Your task to perform on an android device: uninstall "Google Sheets" Image 0: 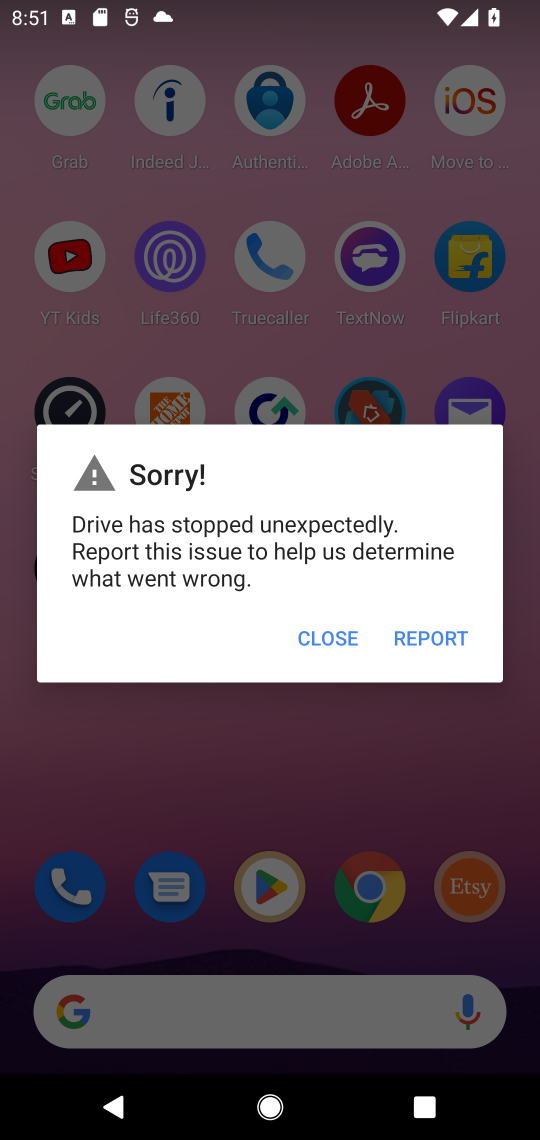
Step 0: click (316, 639)
Your task to perform on an android device: uninstall "Google Sheets" Image 1: 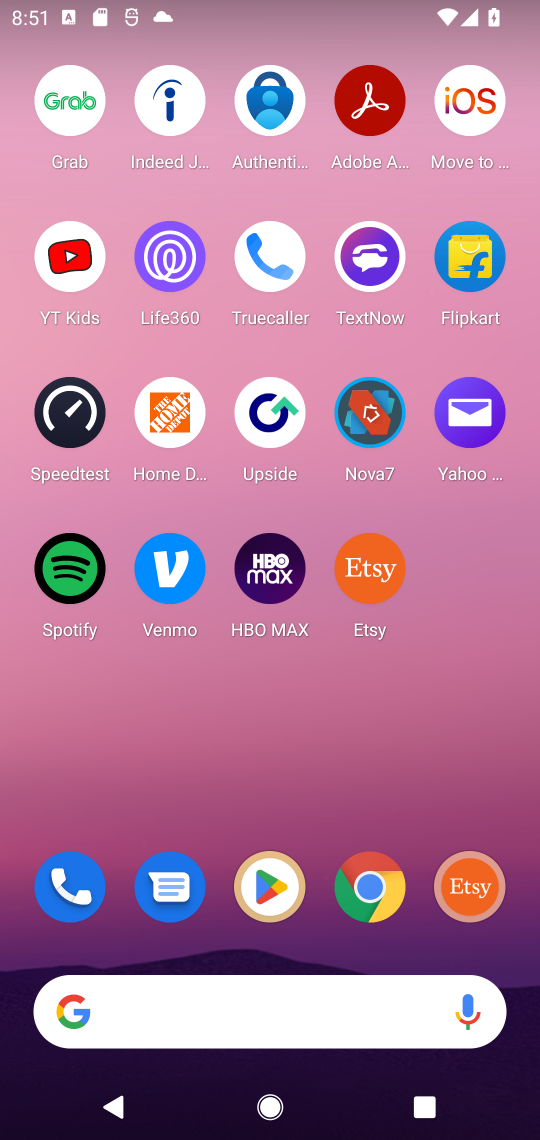
Step 1: click (280, 888)
Your task to perform on an android device: uninstall "Google Sheets" Image 2: 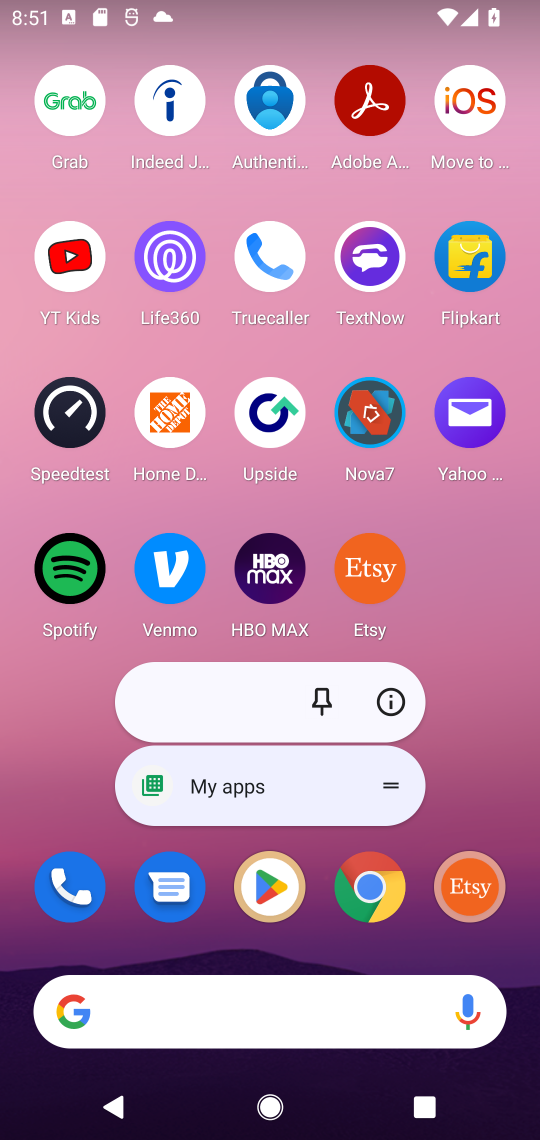
Step 2: click (275, 906)
Your task to perform on an android device: uninstall "Google Sheets" Image 3: 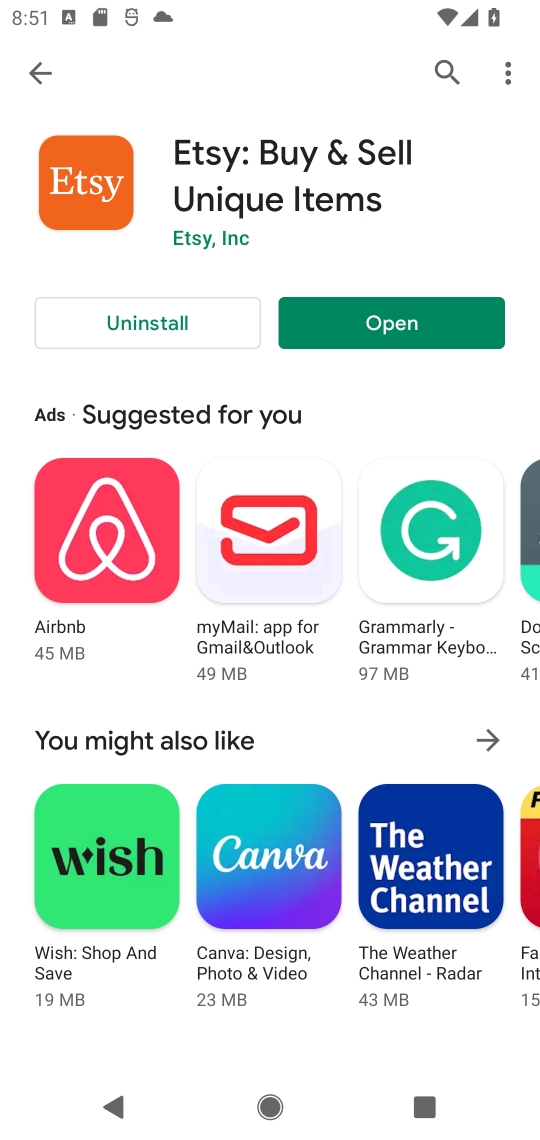
Step 3: click (451, 65)
Your task to perform on an android device: uninstall "Google Sheets" Image 4: 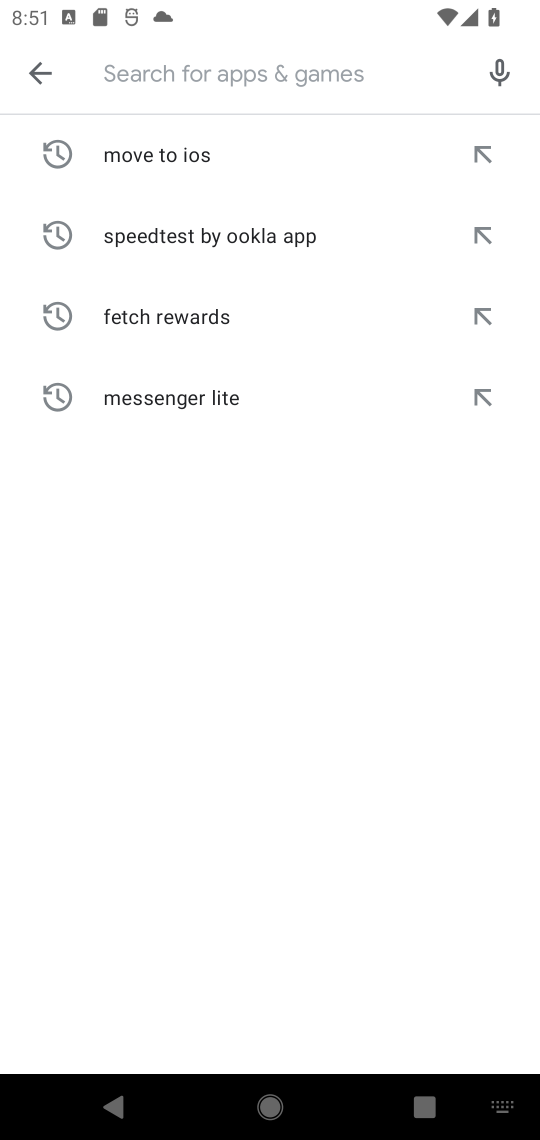
Step 4: type "Google Sheets"
Your task to perform on an android device: uninstall "Google Sheets" Image 5: 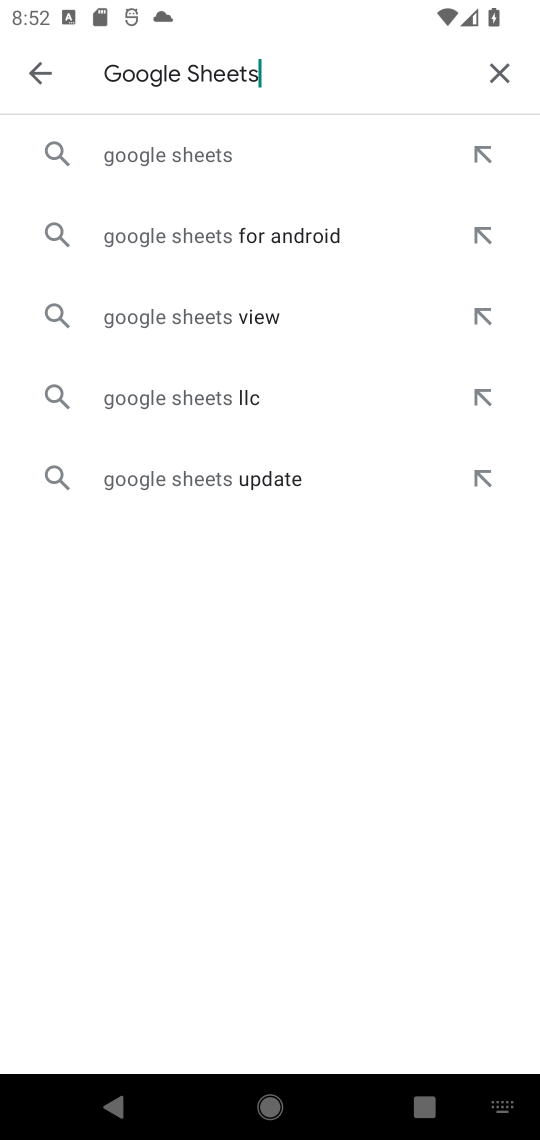
Step 5: click (164, 161)
Your task to perform on an android device: uninstall "Google Sheets" Image 6: 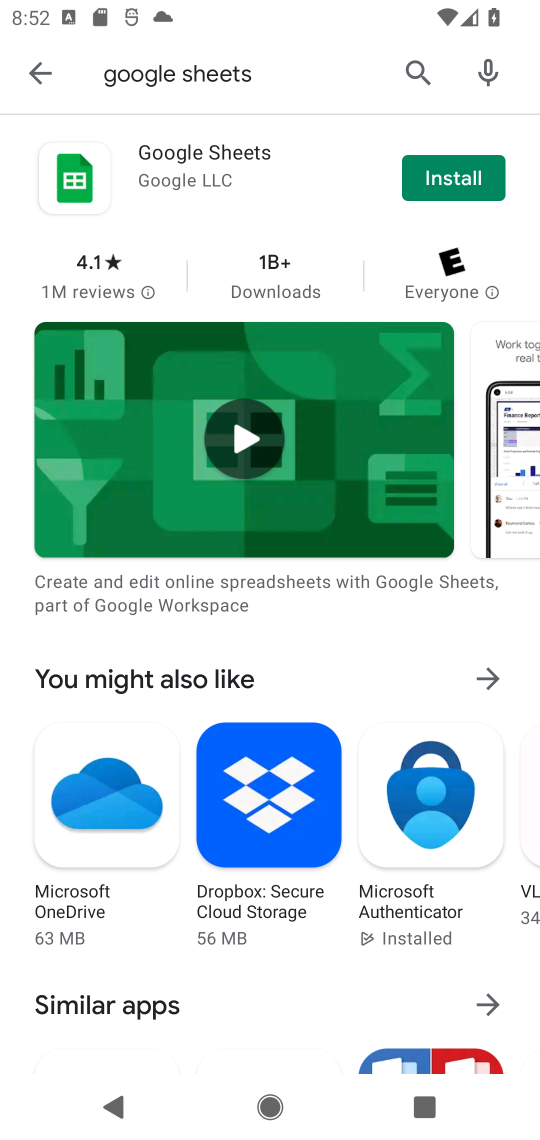
Step 6: click (183, 159)
Your task to perform on an android device: uninstall "Google Sheets" Image 7: 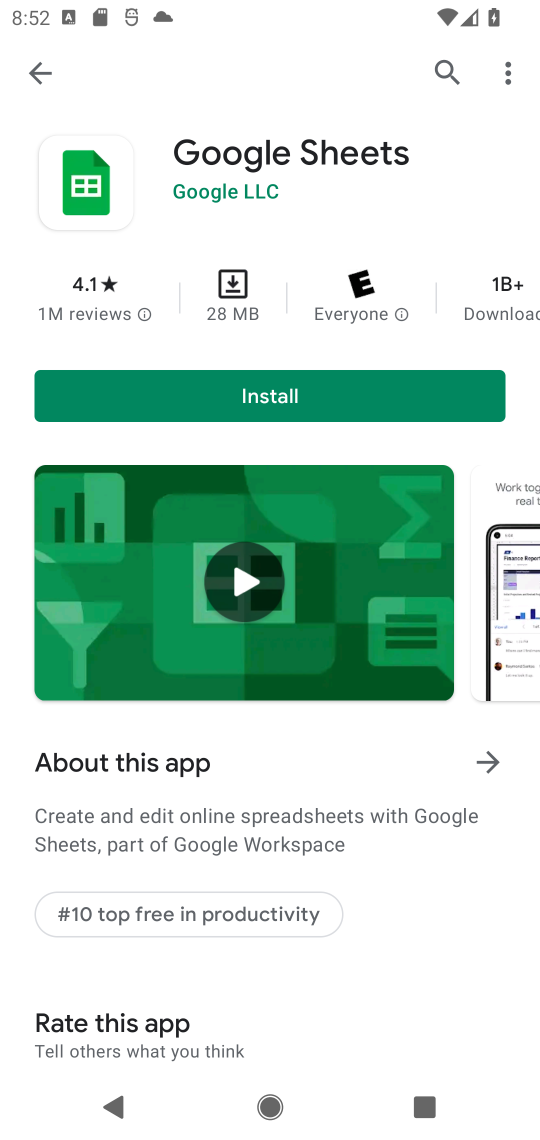
Step 7: task complete